Your task to perform on an android device: Open eBay Image 0: 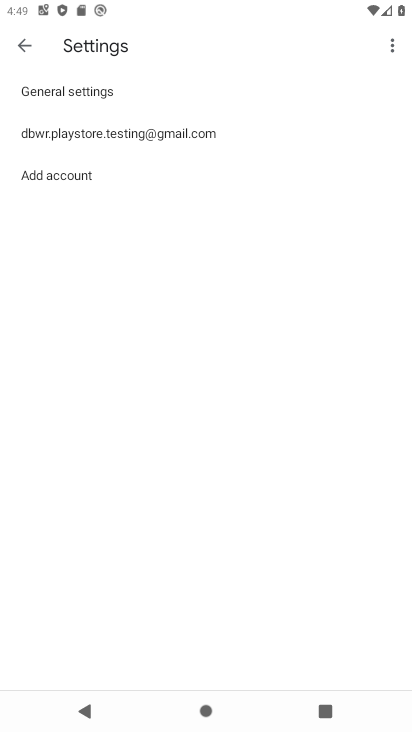
Step 0: press back button
Your task to perform on an android device: Open eBay Image 1: 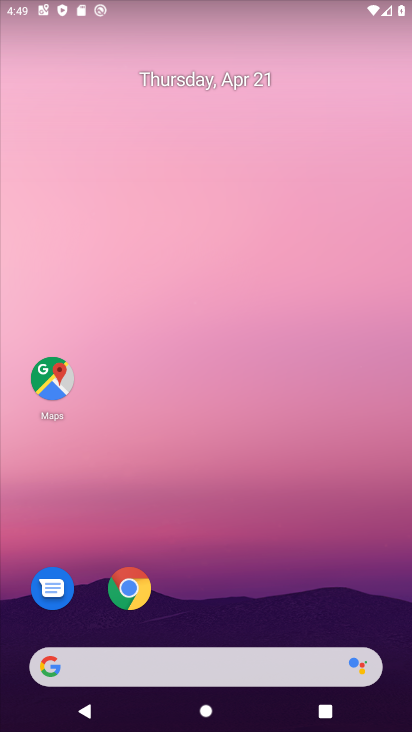
Step 1: click (131, 585)
Your task to perform on an android device: Open eBay Image 2: 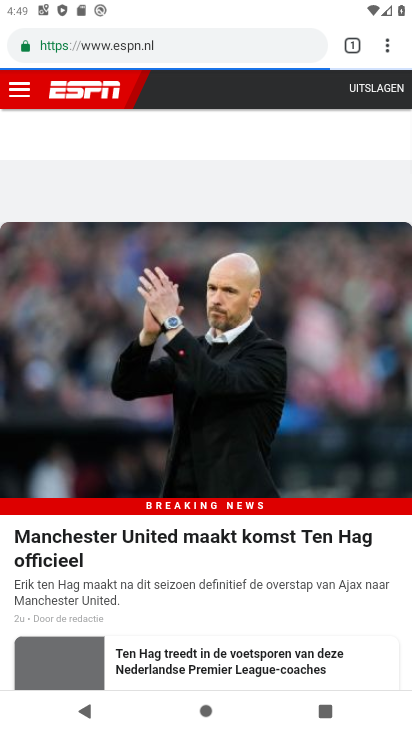
Step 2: click (351, 52)
Your task to perform on an android device: Open eBay Image 3: 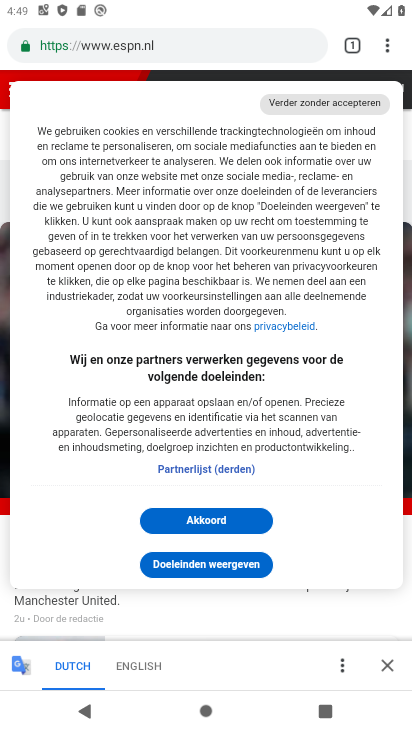
Step 3: click (352, 34)
Your task to perform on an android device: Open eBay Image 4: 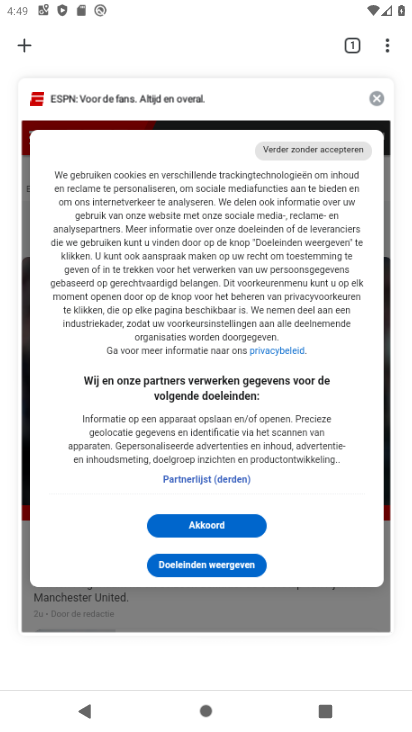
Step 4: click (23, 48)
Your task to perform on an android device: Open eBay Image 5: 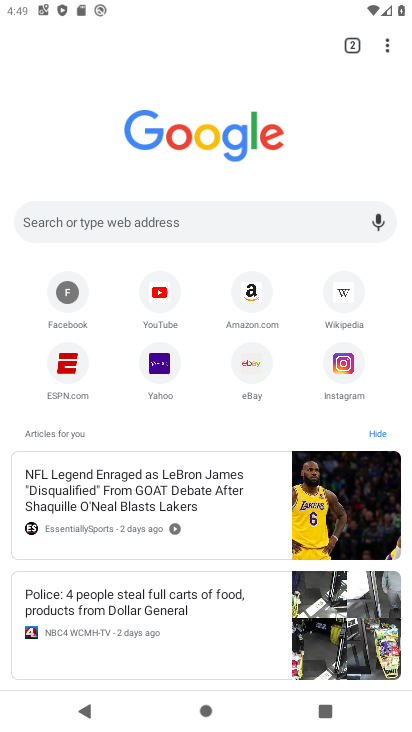
Step 5: click (146, 222)
Your task to perform on an android device: Open eBay Image 6: 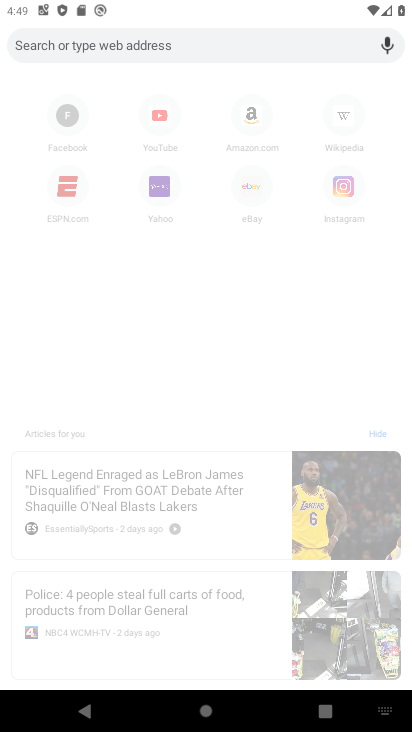
Step 6: type "ebay"
Your task to perform on an android device: Open eBay Image 7: 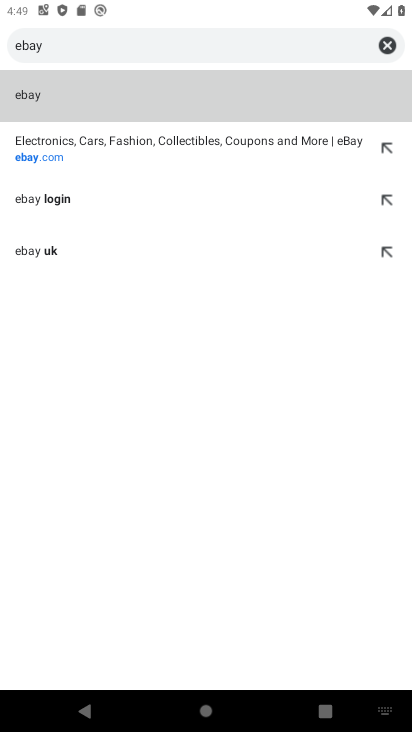
Step 7: click (53, 87)
Your task to perform on an android device: Open eBay Image 8: 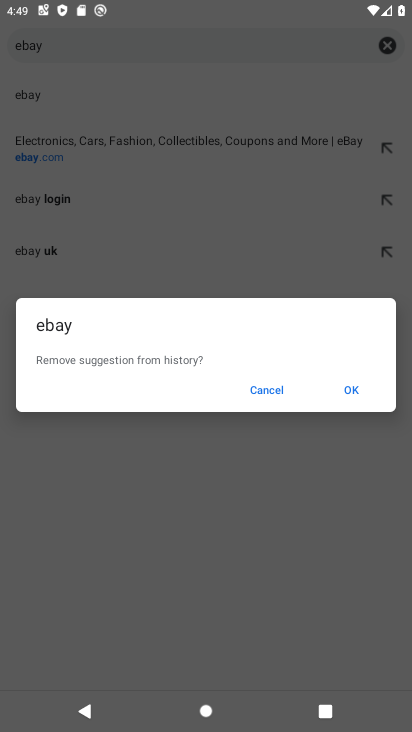
Step 8: click (275, 393)
Your task to perform on an android device: Open eBay Image 9: 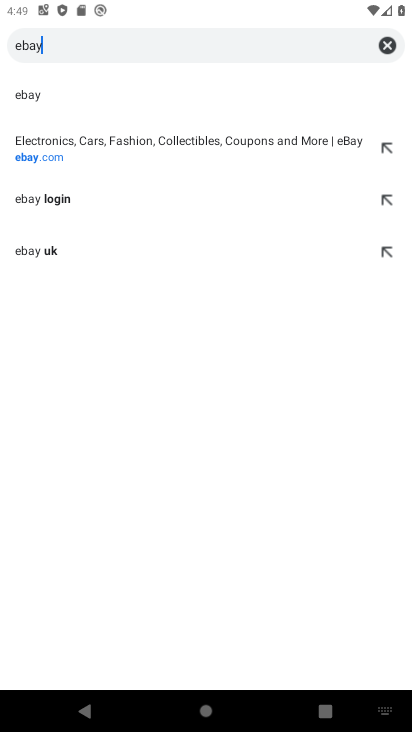
Step 9: click (128, 138)
Your task to perform on an android device: Open eBay Image 10: 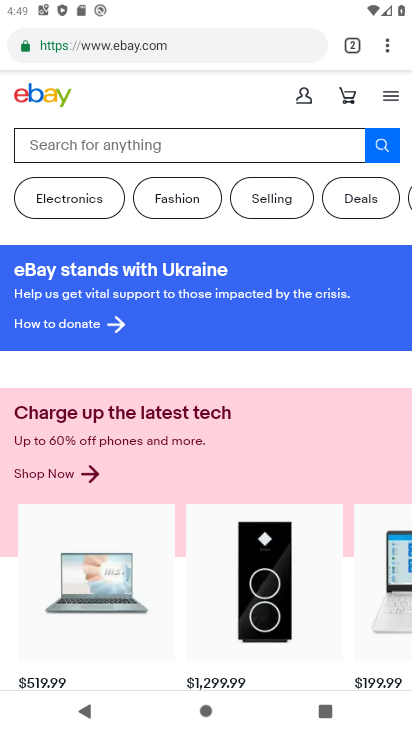
Step 10: task complete